Your task to perform on an android device: search for starred emails in the gmail app Image 0: 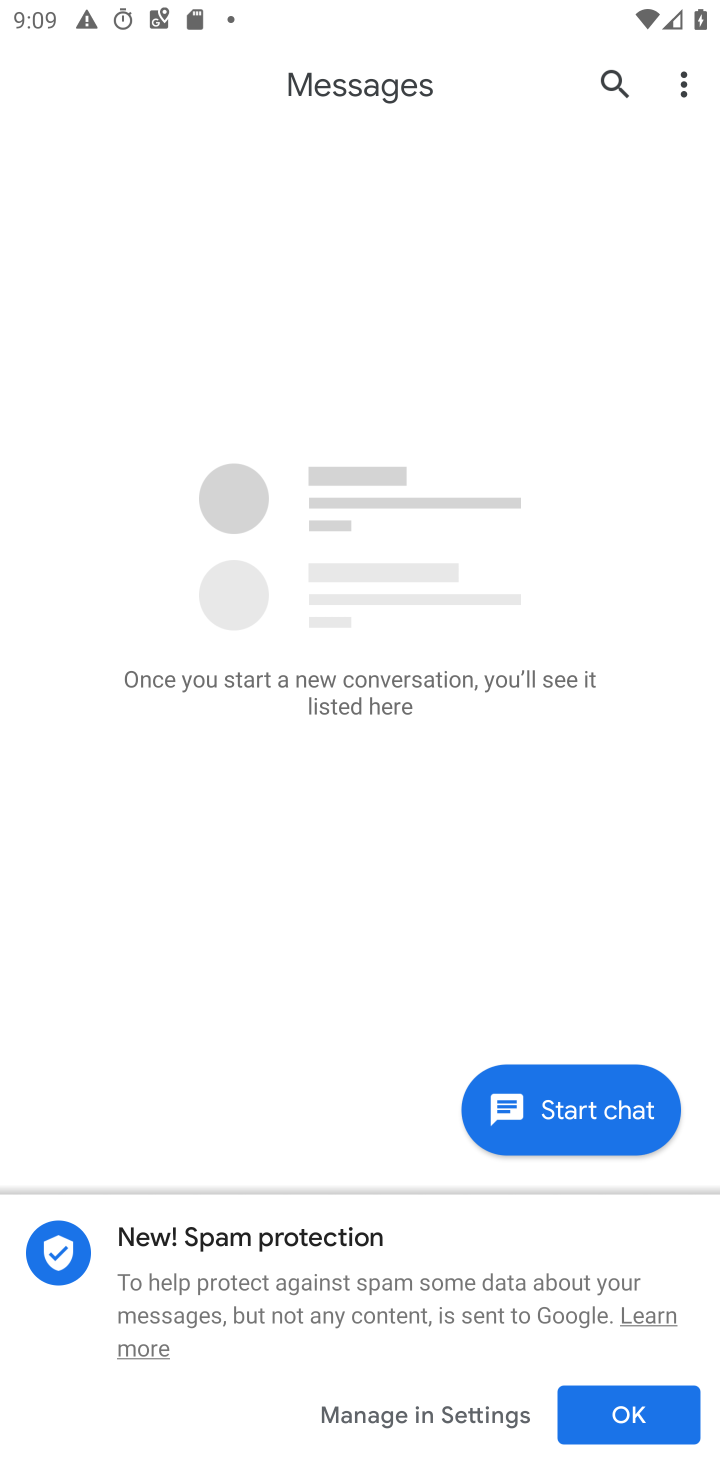
Step 0: press home button
Your task to perform on an android device: search for starred emails in the gmail app Image 1: 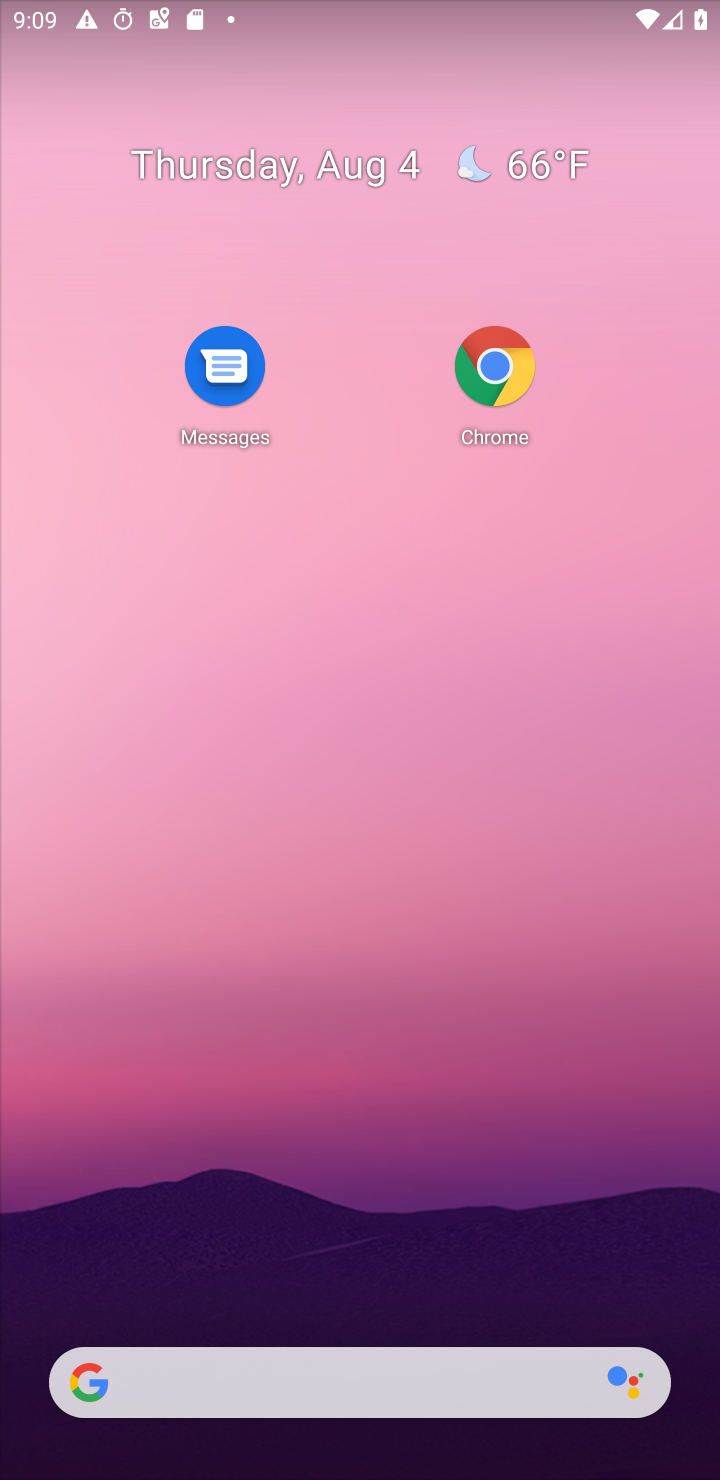
Step 1: drag from (488, 1331) to (351, 651)
Your task to perform on an android device: search for starred emails in the gmail app Image 2: 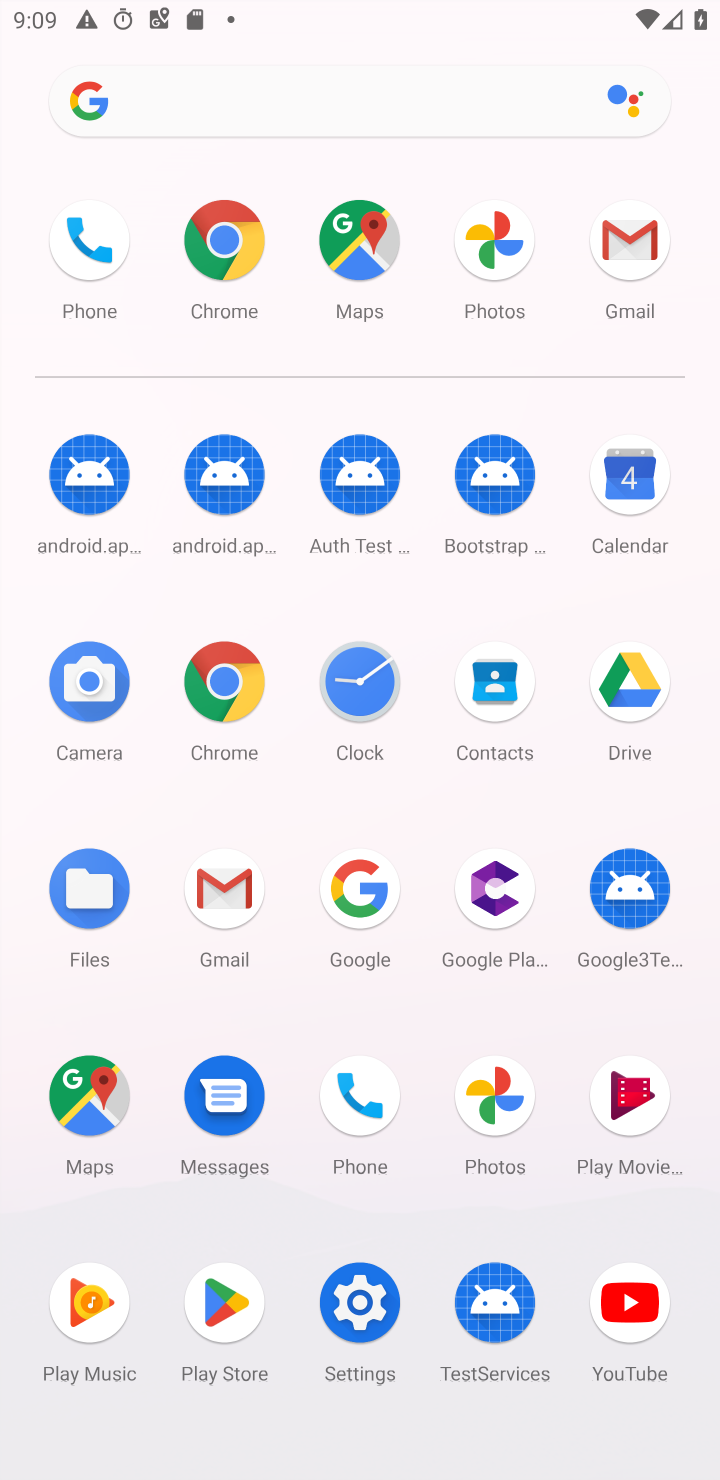
Step 2: click (616, 276)
Your task to perform on an android device: search for starred emails in the gmail app Image 3: 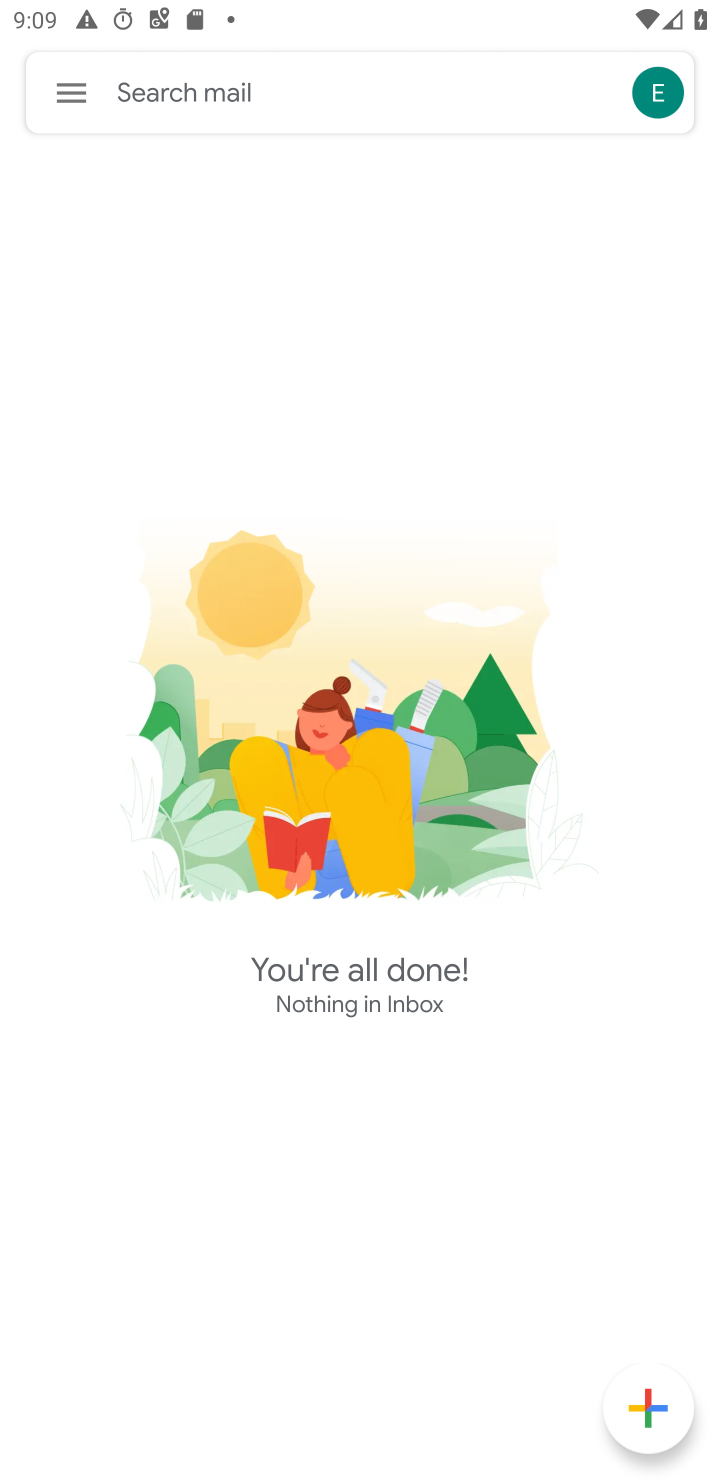
Step 3: click (84, 105)
Your task to perform on an android device: search for starred emails in the gmail app Image 4: 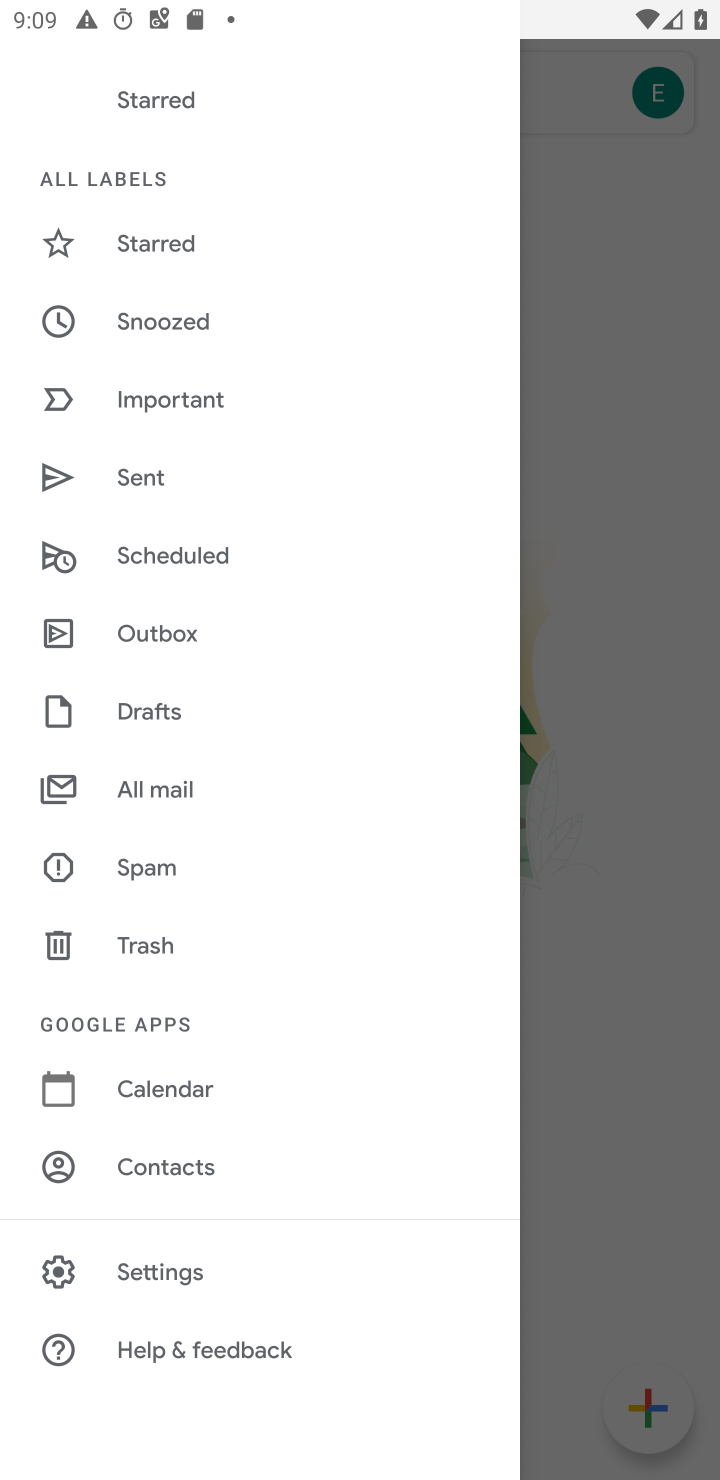
Step 4: click (197, 252)
Your task to perform on an android device: search for starred emails in the gmail app Image 5: 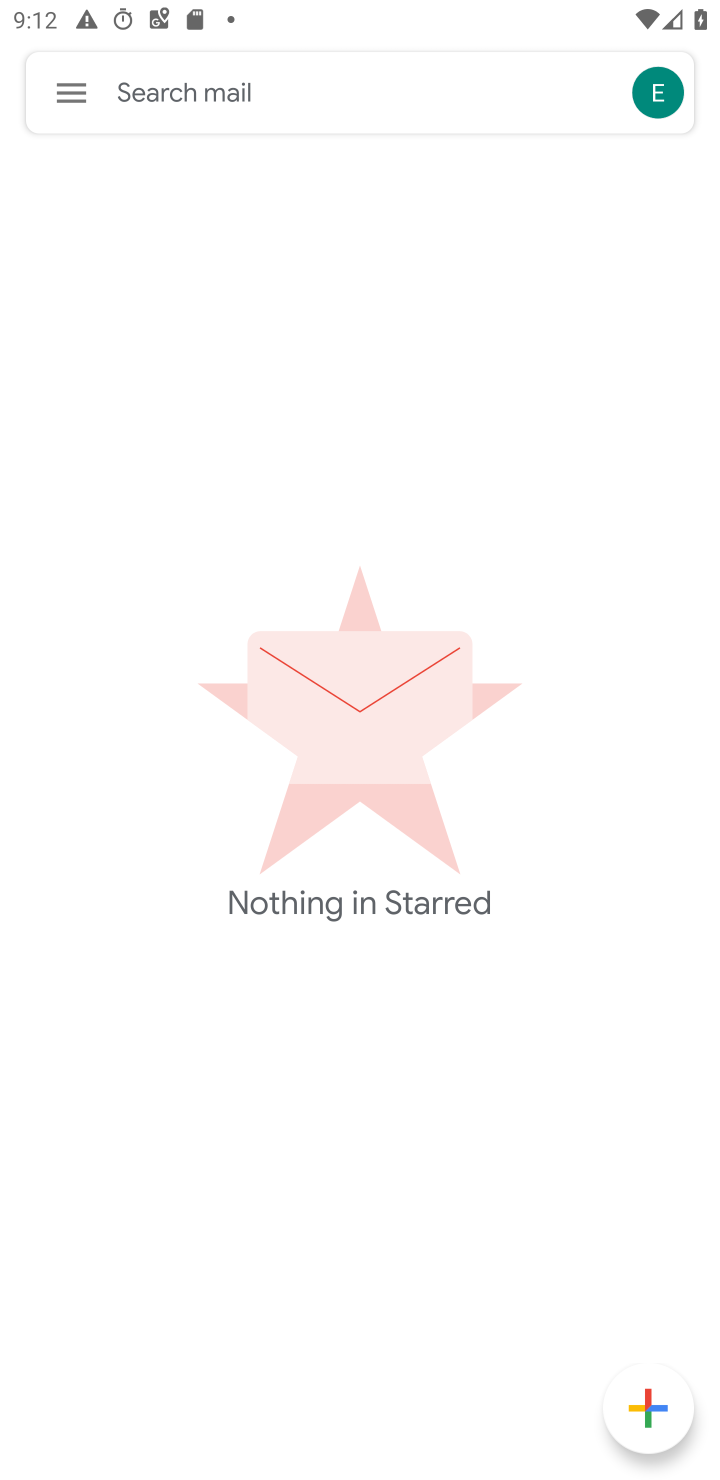
Step 5: task complete